Your task to perform on an android device: open app "Chime – Mobile Banking" (install if not already installed) Image 0: 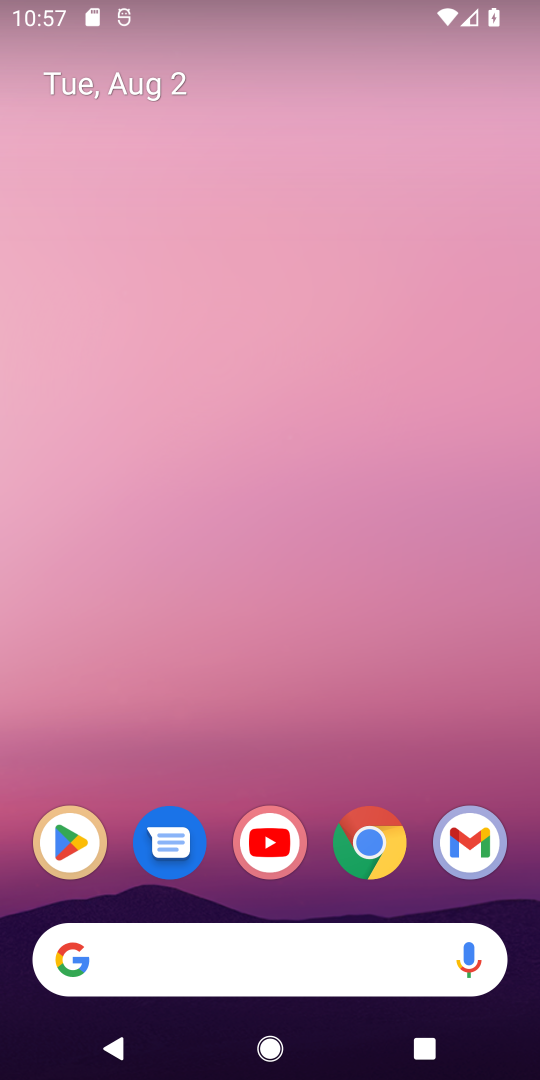
Step 0: press home button
Your task to perform on an android device: open app "Chime – Mobile Banking" (install if not already installed) Image 1: 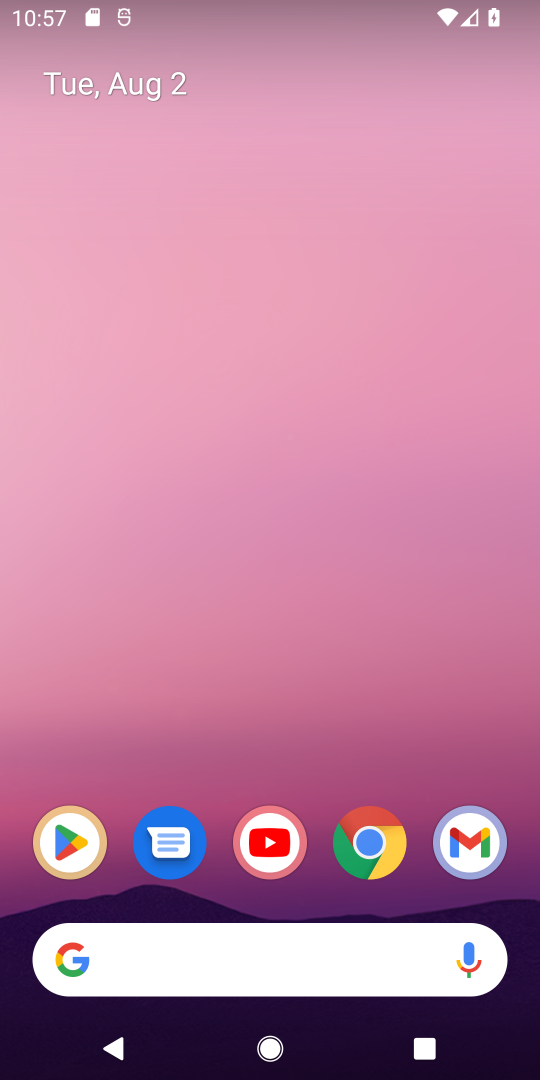
Step 1: drag from (416, 710) to (298, 317)
Your task to perform on an android device: open app "Chime – Mobile Banking" (install if not already installed) Image 2: 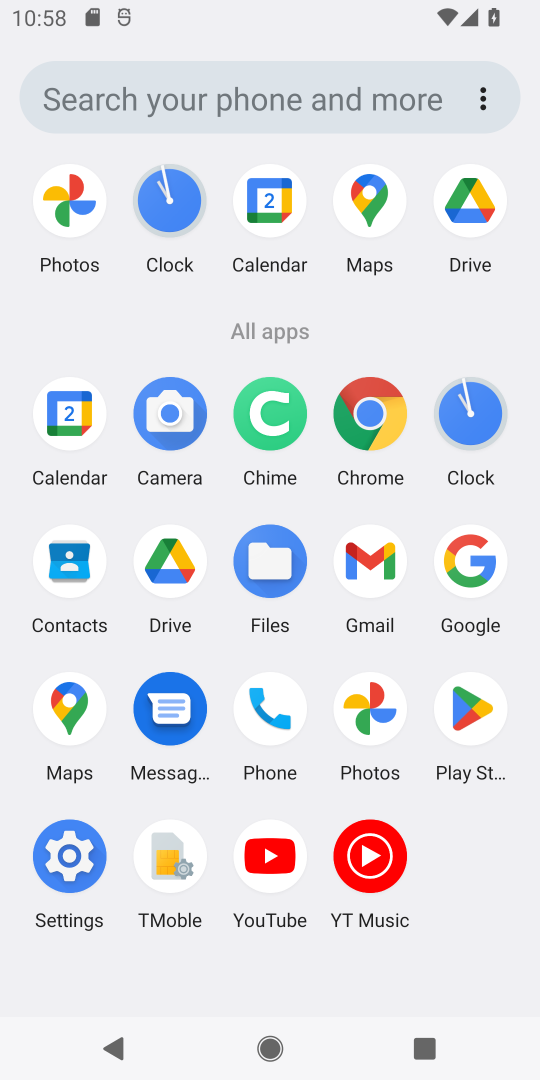
Step 2: click (442, 681)
Your task to perform on an android device: open app "Chime – Mobile Banking" (install if not already installed) Image 3: 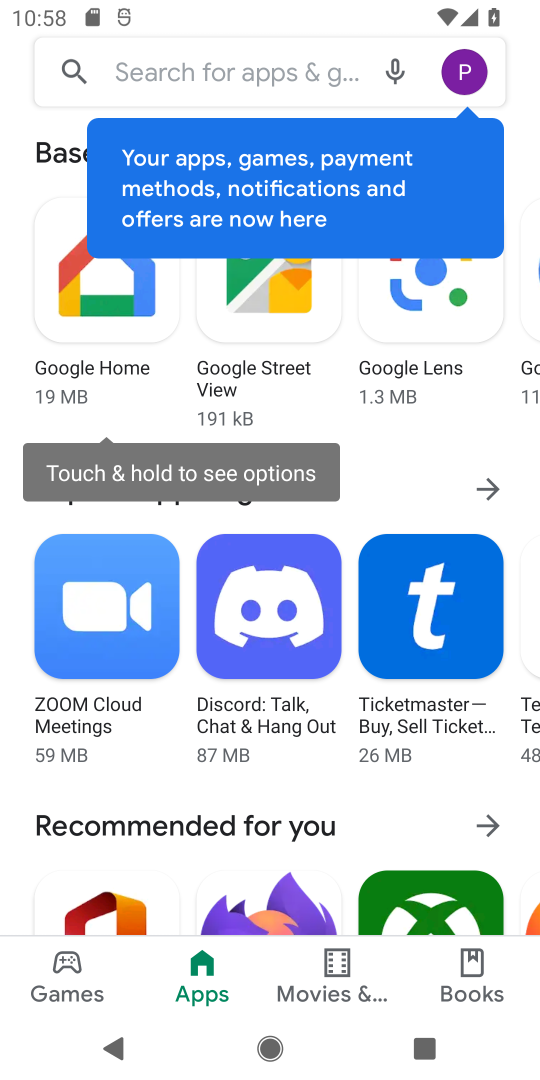
Step 3: click (183, 78)
Your task to perform on an android device: open app "Chime – Mobile Banking" (install if not already installed) Image 4: 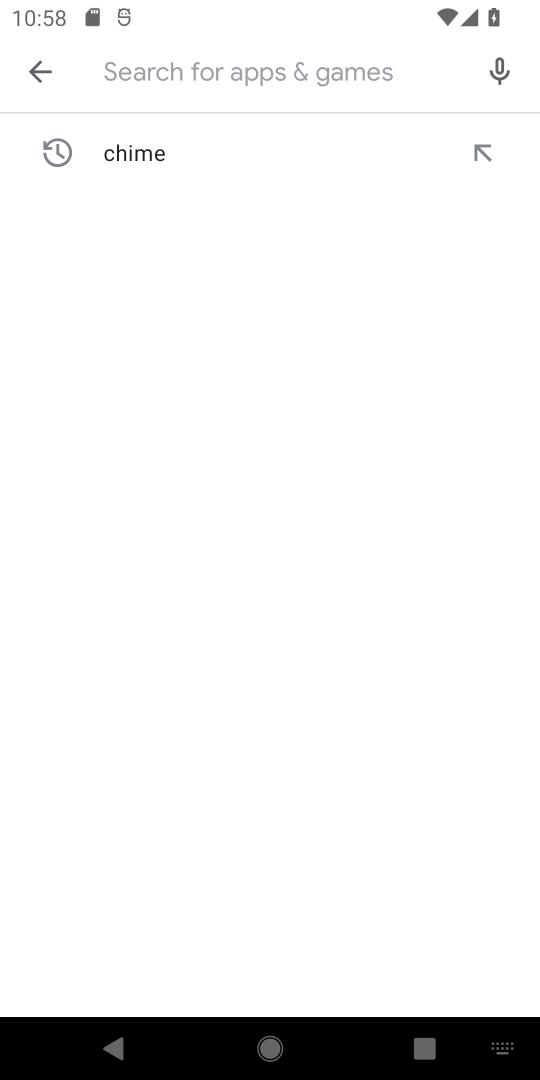
Step 4: click (121, 182)
Your task to perform on an android device: open app "Chime – Mobile Banking" (install if not already installed) Image 5: 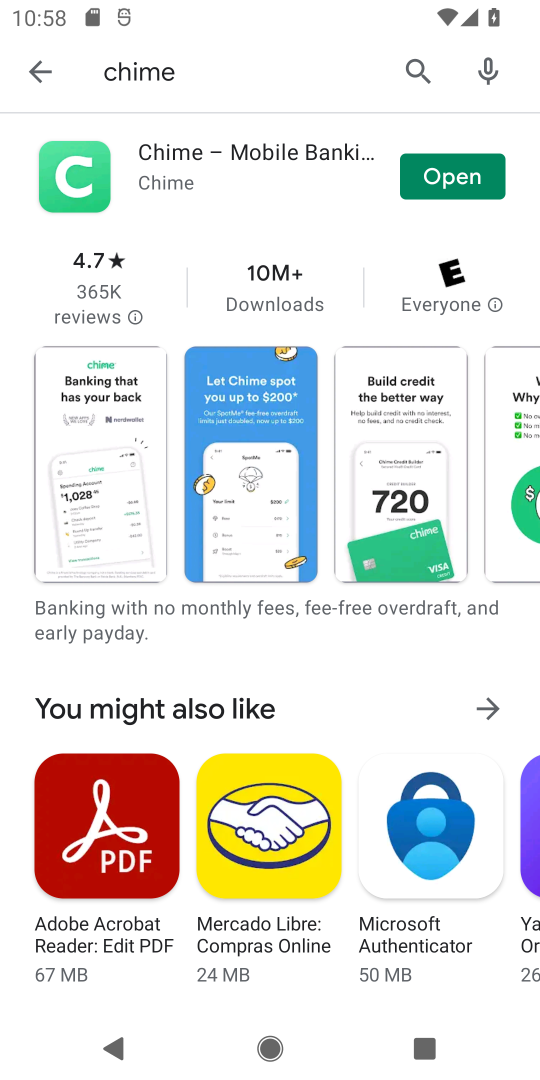
Step 5: click (487, 190)
Your task to perform on an android device: open app "Chime – Mobile Banking" (install if not already installed) Image 6: 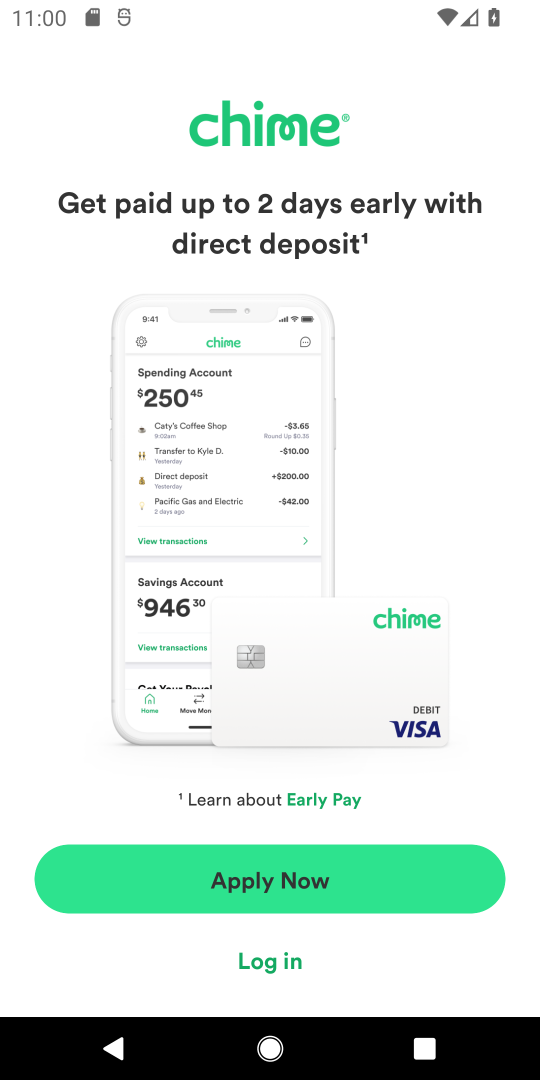
Step 6: task complete